Your task to perform on an android device: Open Youtube and go to "Your channel" Image 0: 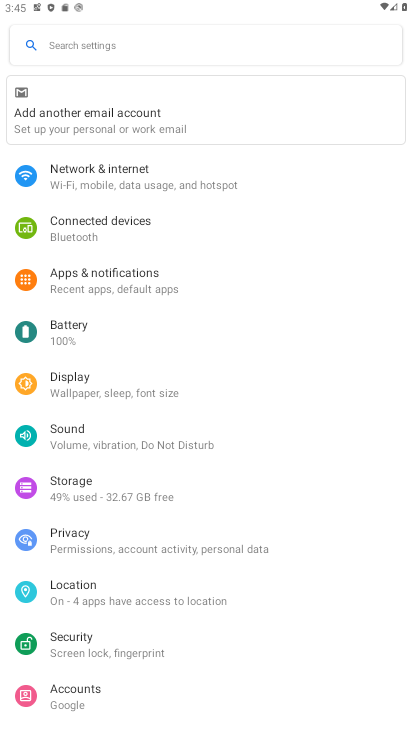
Step 0: press home button
Your task to perform on an android device: Open Youtube and go to "Your channel" Image 1: 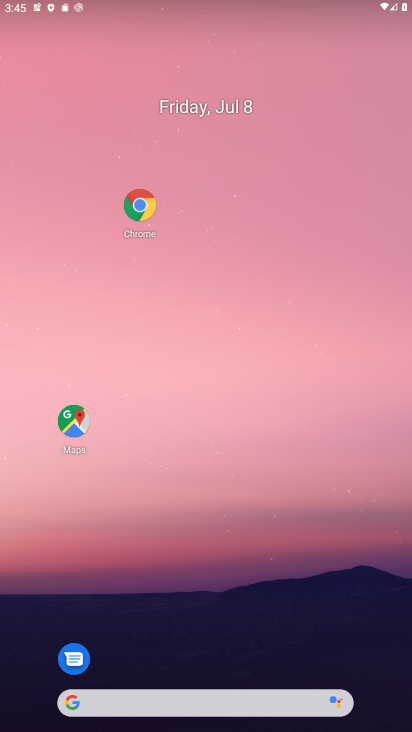
Step 1: drag from (209, 574) to (209, 115)
Your task to perform on an android device: Open Youtube and go to "Your channel" Image 2: 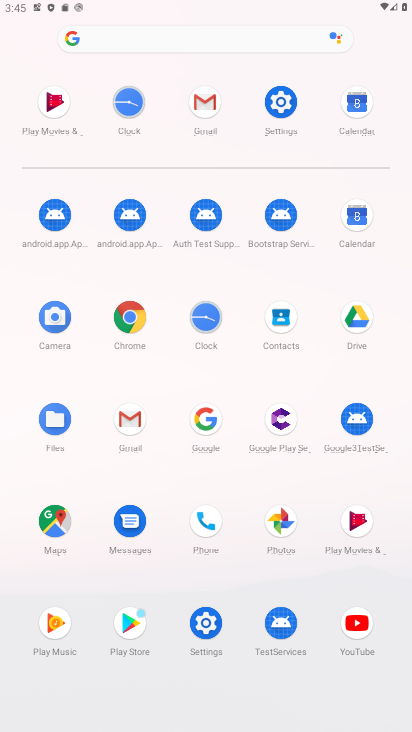
Step 2: click (352, 619)
Your task to perform on an android device: Open Youtube and go to "Your channel" Image 3: 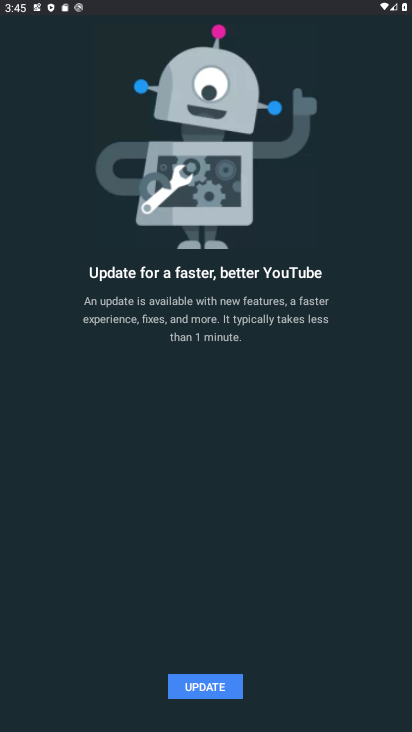
Step 3: click (195, 678)
Your task to perform on an android device: Open Youtube and go to "Your channel" Image 4: 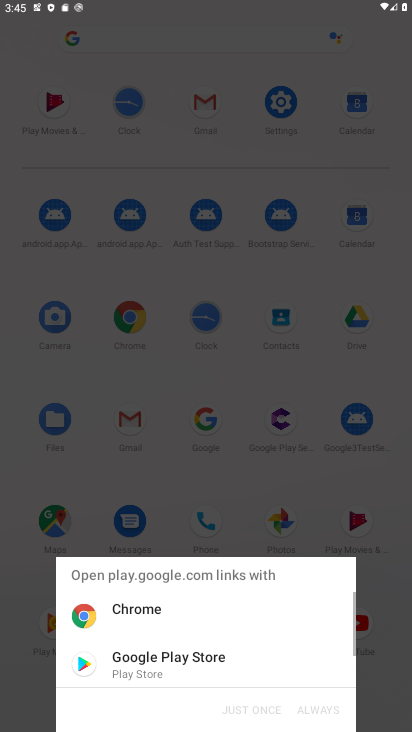
Step 4: click (173, 668)
Your task to perform on an android device: Open Youtube and go to "Your channel" Image 5: 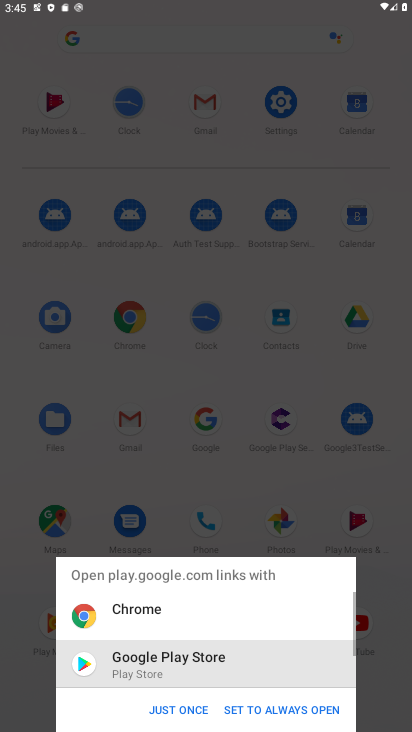
Step 5: click (210, 711)
Your task to perform on an android device: Open Youtube and go to "Your channel" Image 6: 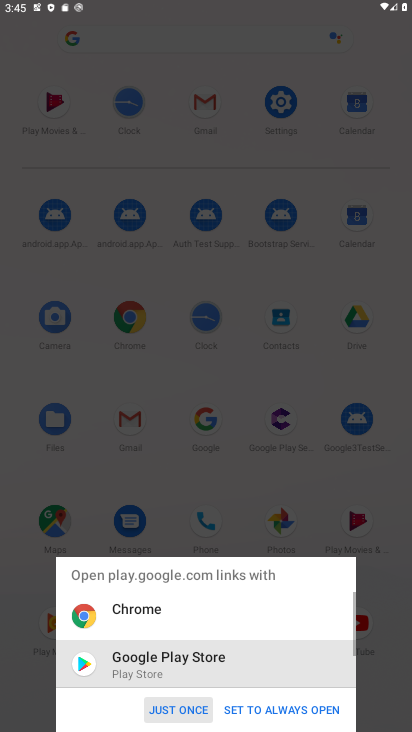
Step 6: click (195, 711)
Your task to perform on an android device: Open Youtube and go to "Your channel" Image 7: 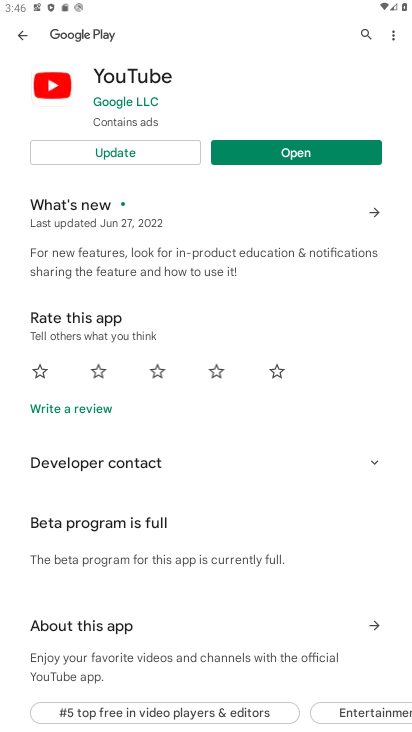
Step 7: click (91, 156)
Your task to perform on an android device: Open Youtube and go to "Your channel" Image 8: 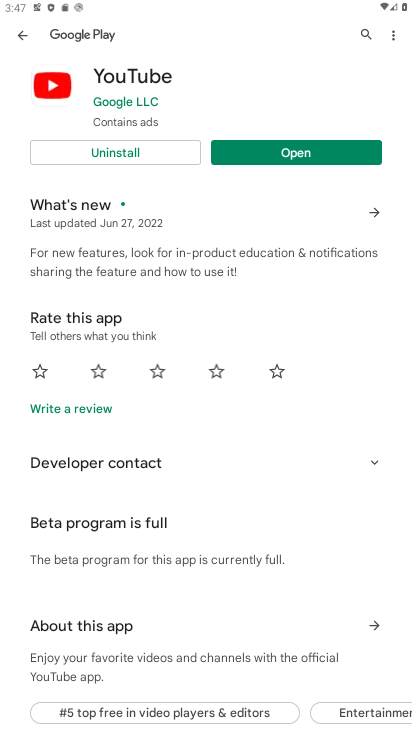
Step 8: click (266, 161)
Your task to perform on an android device: Open Youtube and go to "Your channel" Image 9: 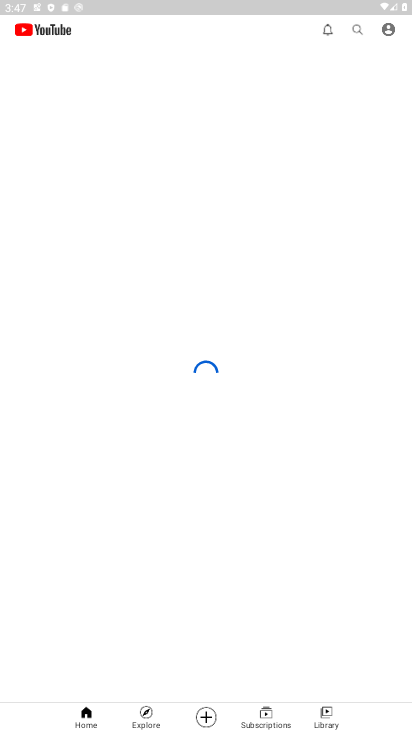
Step 9: click (385, 34)
Your task to perform on an android device: Open Youtube and go to "Your channel" Image 10: 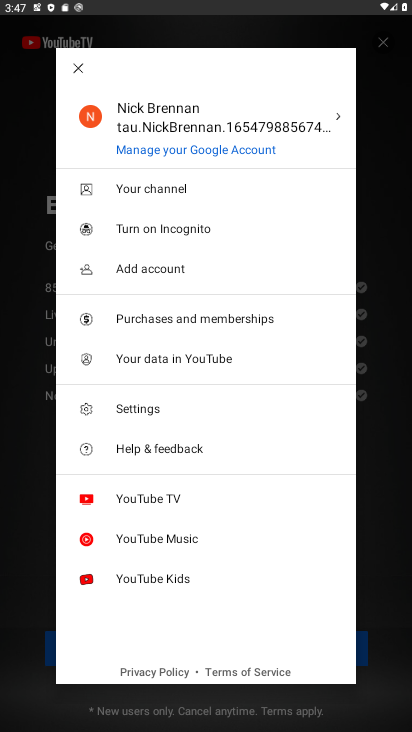
Step 10: click (388, 44)
Your task to perform on an android device: Open Youtube and go to "Your channel" Image 11: 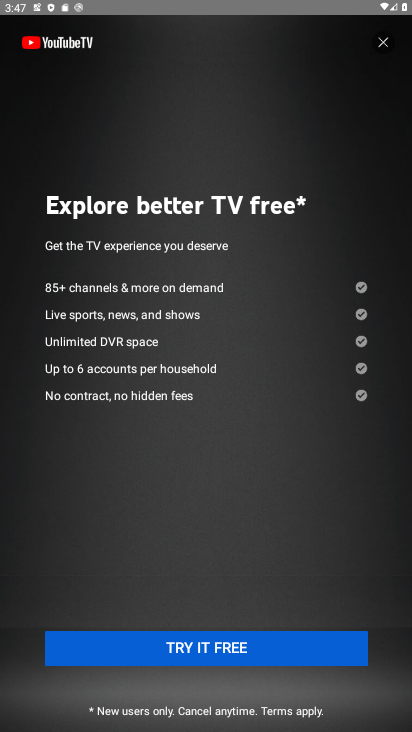
Step 11: click (388, 46)
Your task to perform on an android device: Open Youtube and go to "Your channel" Image 12: 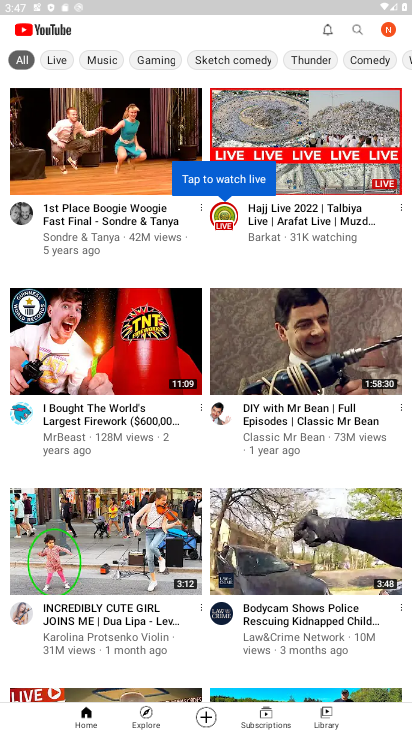
Step 12: click (386, 34)
Your task to perform on an android device: Open Youtube and go to "Your channel" Image 13: 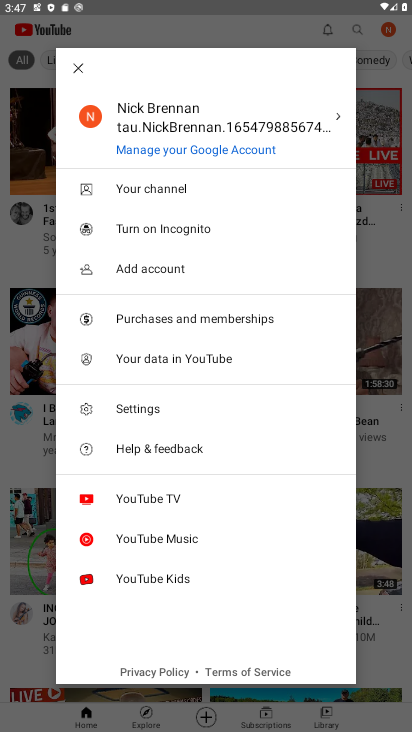
Step 13: click (163, 185)
Your task to perform on an android device: Open Youtube and go to "Your channel" Image 14: 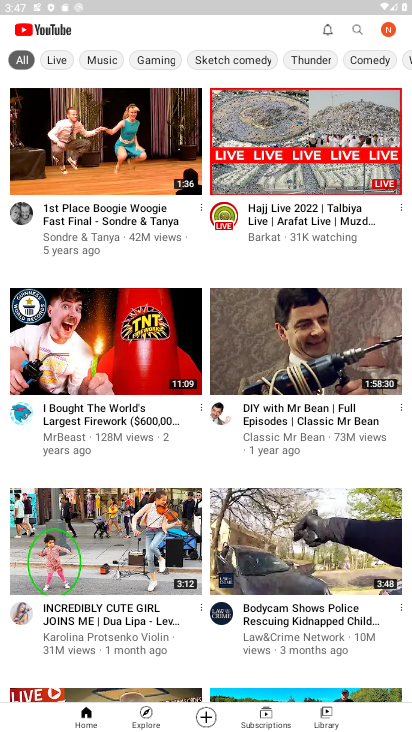
Step 14: task complete